Your task to perform on an android device: find which apps use the phone's location Image 0: 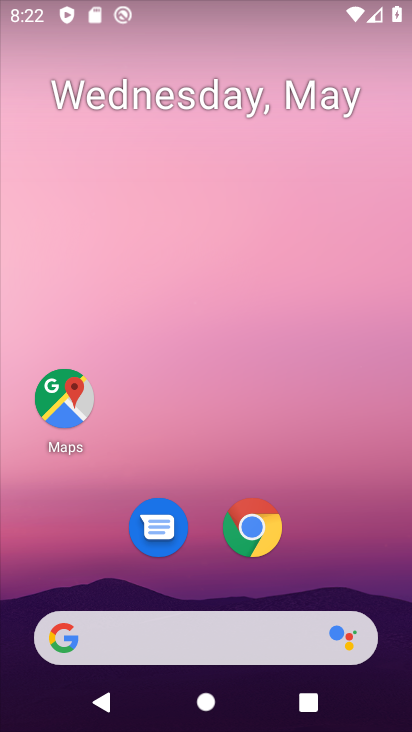
Step 0: drag from (290, 498) to (297, 223)
Your task to perform on an android device: find which apps use the phone's location Image 1: 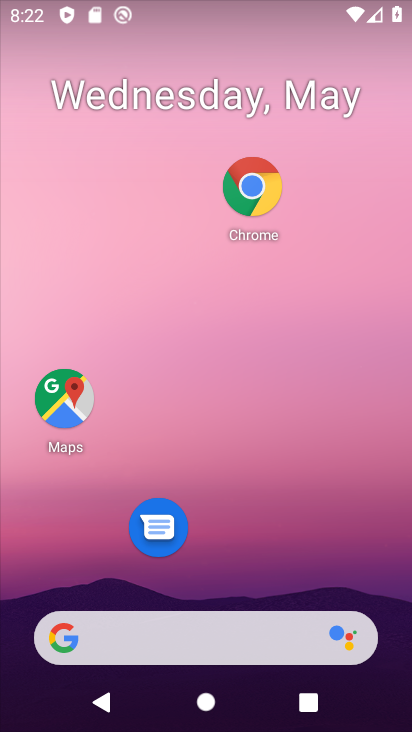
Step 1: drag from (315, 548) to (340, 280)
Your task to perform on an android device: find which apps use the phone's location Image 2: 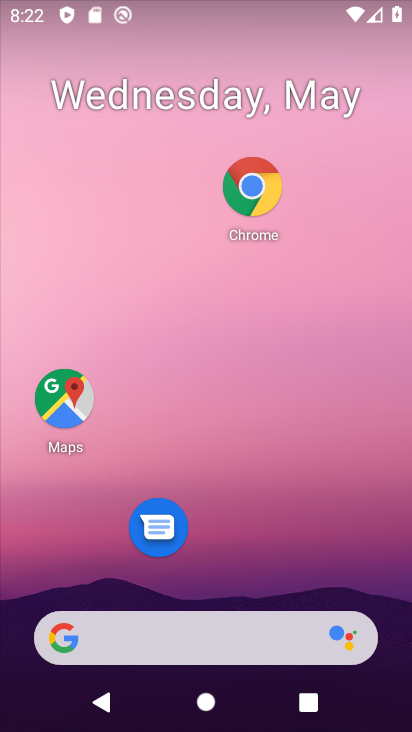
Step 2: drag from (239, 614) to (280, 207)
Your task to perform on an android device: find which apps use the phone's location Image 3: 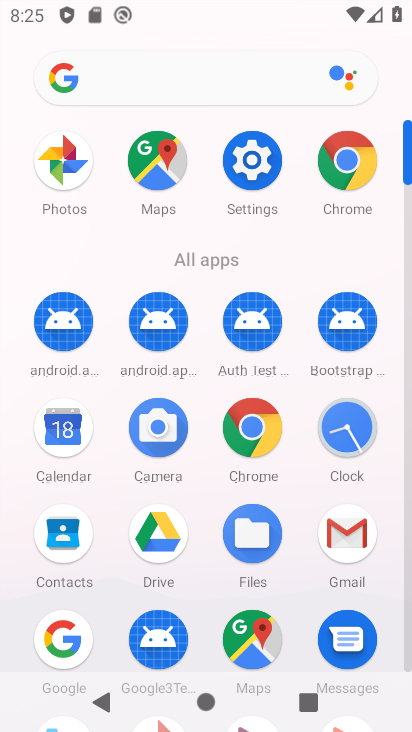
Step 3: drag from (191, 567) to (206, 239)
Your task to perform on an android device: find which apps use the phone's location Image 4: 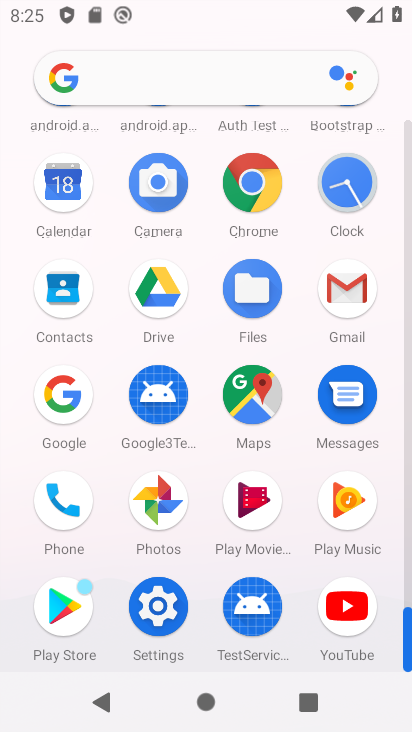
Step 4: click (99, 503)
Your task to perform on an android device: find which apps use the phone's location Image 5: 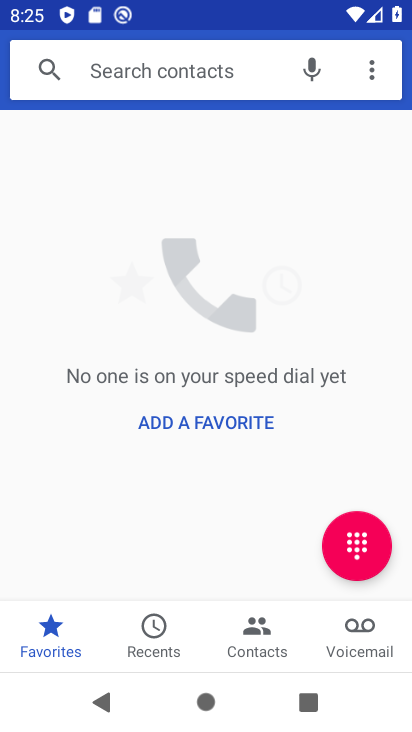
Step 5: click (158, 637)
Your task to perform on an android device: find which apps use the phone's location Image 6: 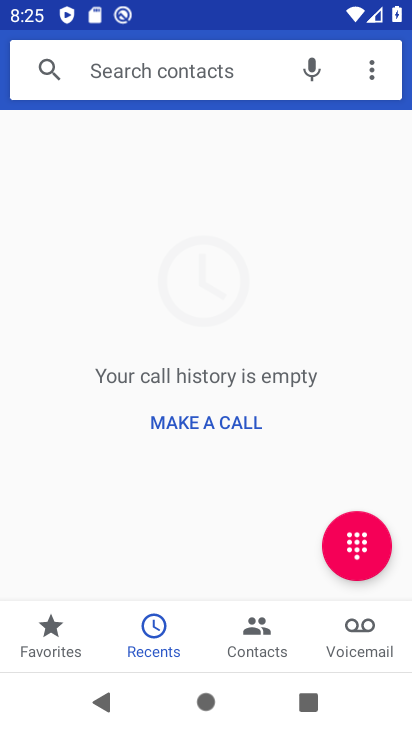
Step 6: task complete